Your task to perform on an android device: Open calendar and show me the fourth week of next month Image 0: 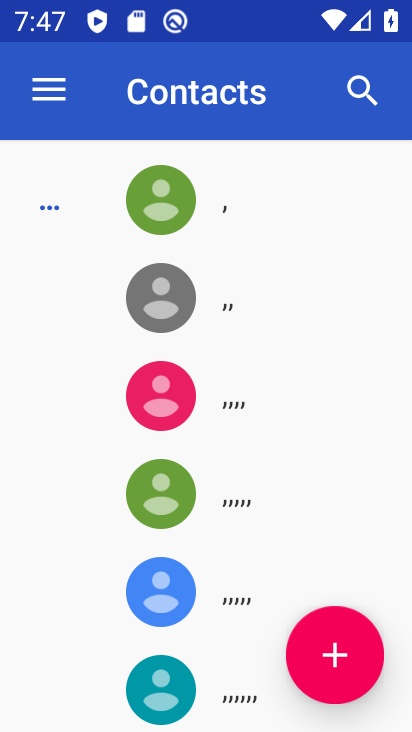
Step 0: press home button
Your task to perform on an android device: Open calendar and show me the fourth week of next month Image 1: 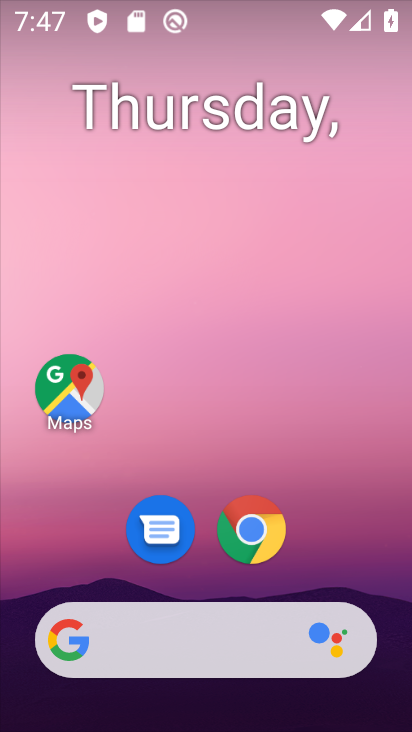
Step 1: click (227, 108)
Your task to perform on an android device: Open calendar and show me the fourth week of next month Image 2: 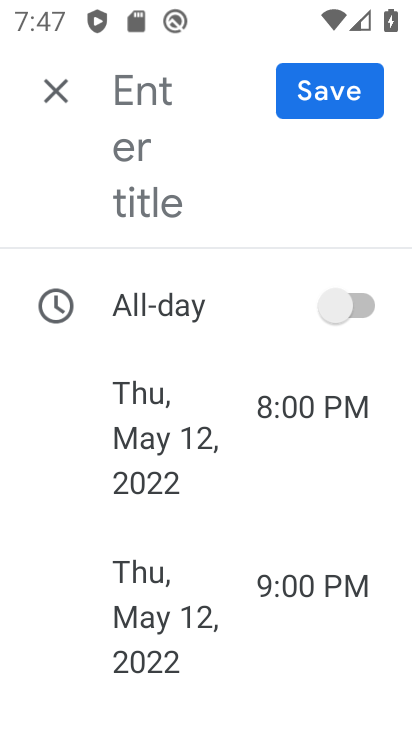
Step 2: click (62, 92)
Your task to perform on an android device: Open calendar and show me the fourth week of next month Image 3: 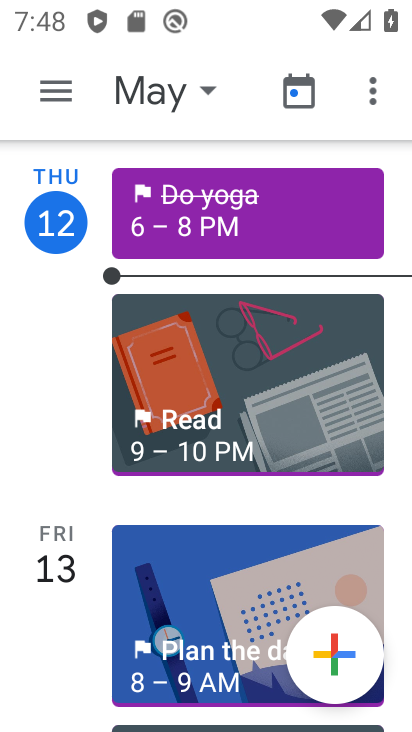
Step 3: click (150, 89)
Your task to perform on an android device: Open calendar and show me the fourth week of next month Image 4: 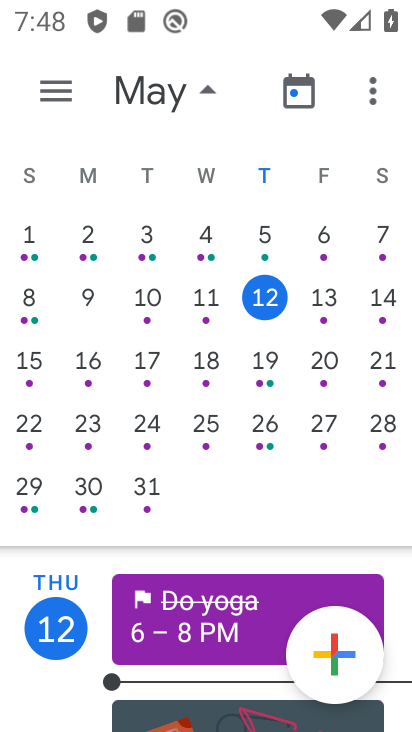
Step 4: drag from (374, 497) to (21, 503)
Your task to perform on an android device: Open calendar and show me the fourth week of next month Image 5: 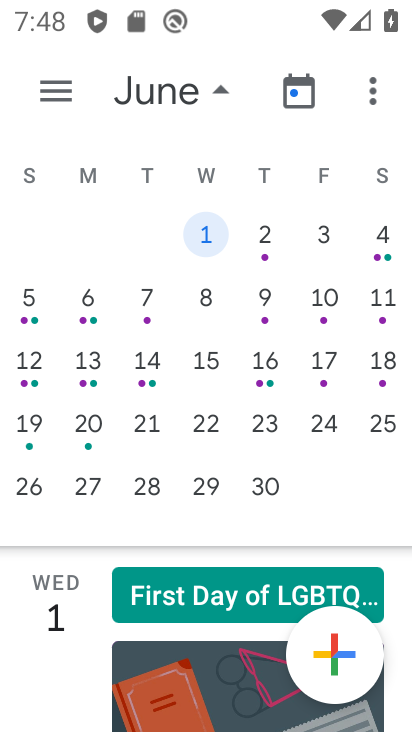
Step 5: click (157, 431)
Your task to perform on an android device: Open calendar and show me the fourth week of next month Image 6: 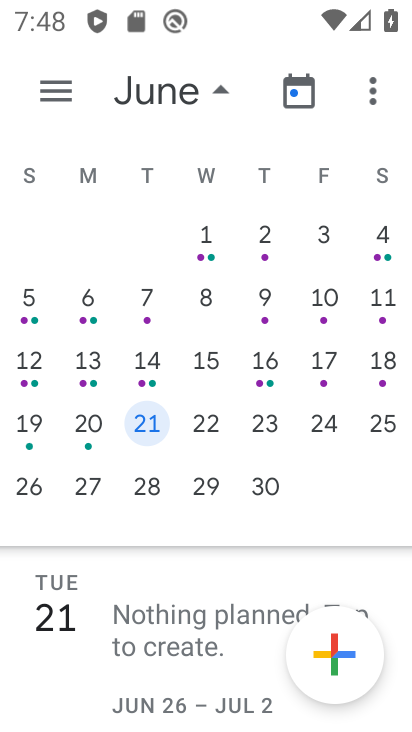
Step 6: task complete